Your task to perform on an android device: Go to Yahoo.com Image 0: 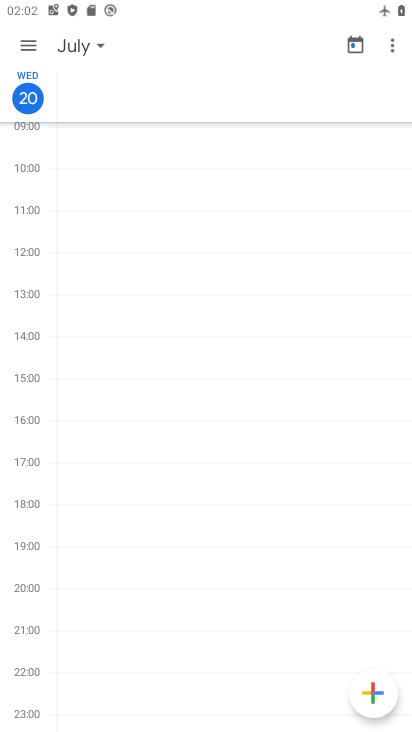
Step 0: press home button
Your task to perform on an android device: Go to Yahoo.com Image 1: 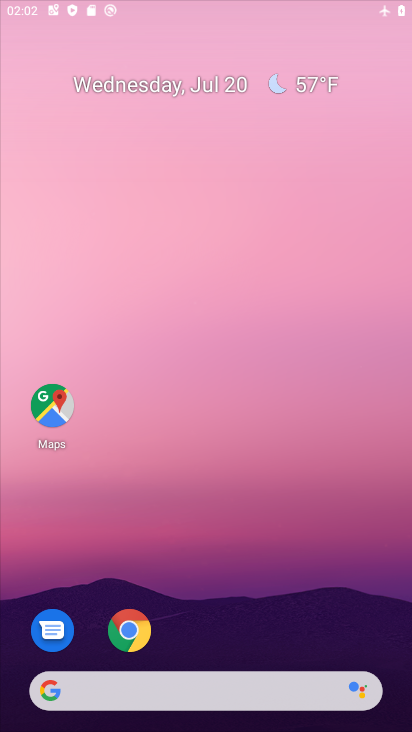
Step 1: drag from (288, 613) to (313, 76)
Your task to perform on an android device: Go to Yahoo.com Image 2: 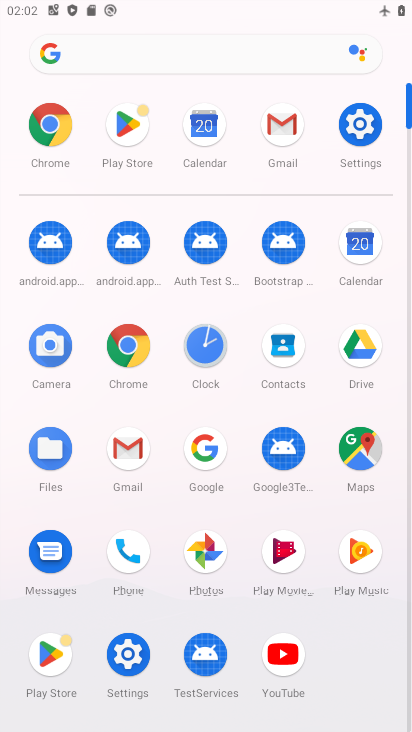
Step 2: click (126, 349)
Your task to perform on an android device: Go to Yahoo.com Image 3: 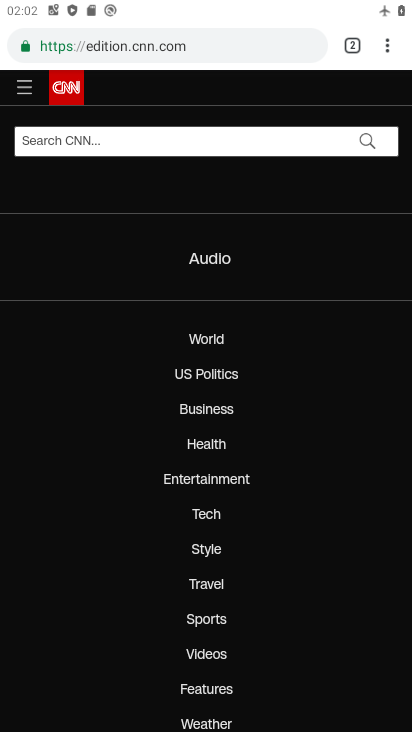
Step 3: click (182, 32)
Your task to perform on an android device: Go to Yahoo.com Image 4: 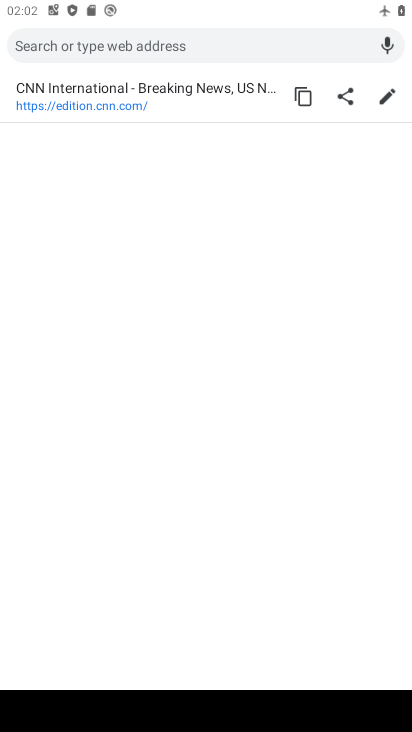
Step 4: type "yahoo.com"
Your task to perform on an android device: Go to Yahoo.com Image 5: 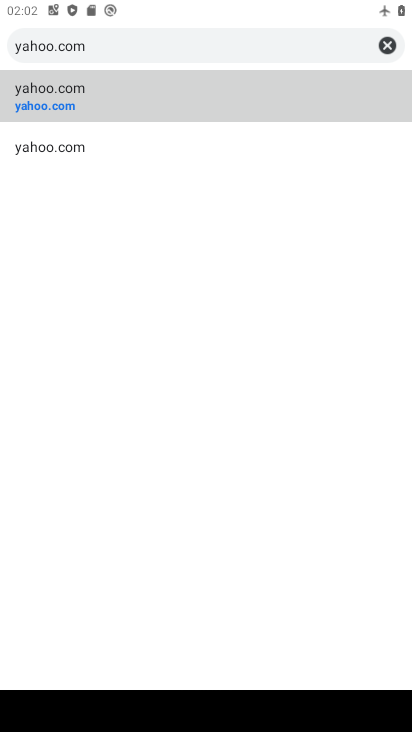
Step 5: click (69, 113)
Your task to perform on an android device: Go to Yahoo.com Image 6: 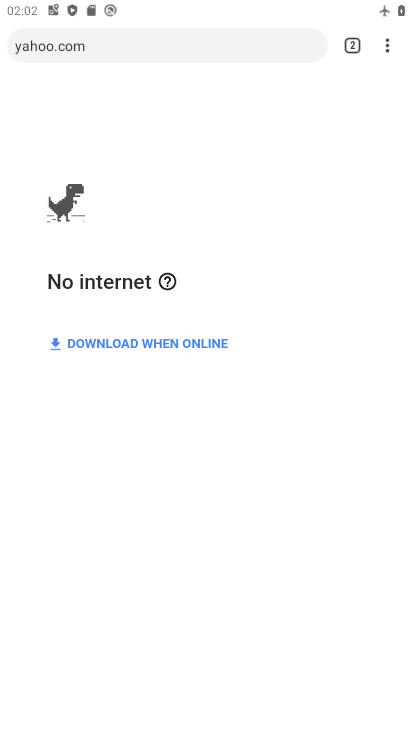
Step 6: task complete